Your task to perform on an android device: open a bookmark in the chrome app Image 0: 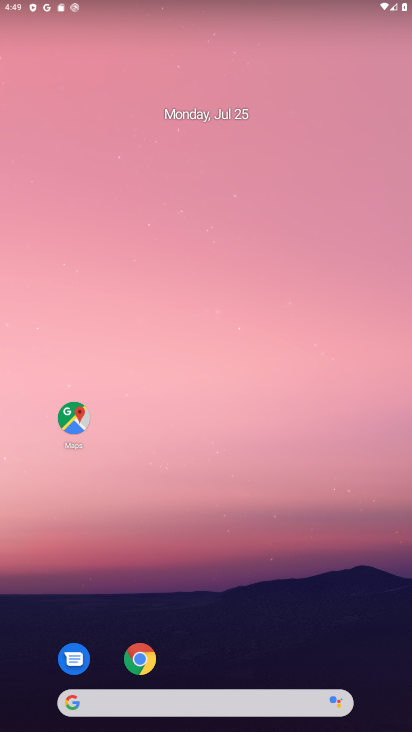
Step 0: click (136, 658)
Your task to perform on an android device: open a bookmark in the chrome app Image 1: 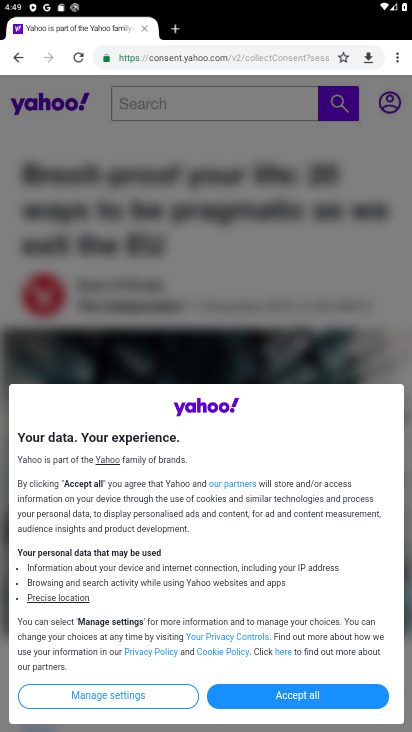
Step 1: click (397, 61)
Your task to perform on an android device: open a bookmark in the chrome app Image 2: 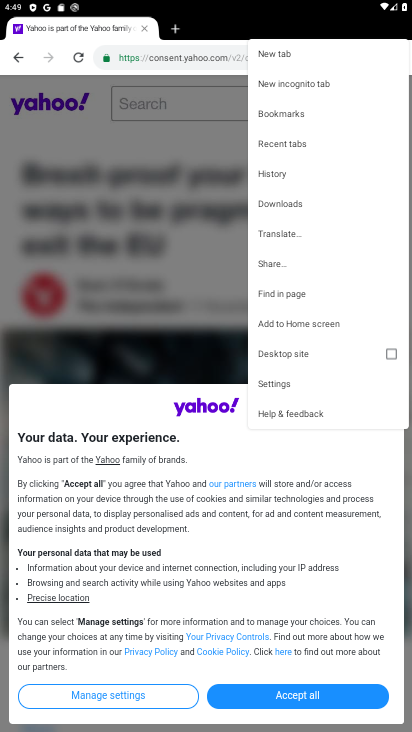
Step 2: click (301, 120)
Your task to perform on an android device: open a bookmark in the chrome app Image 3: 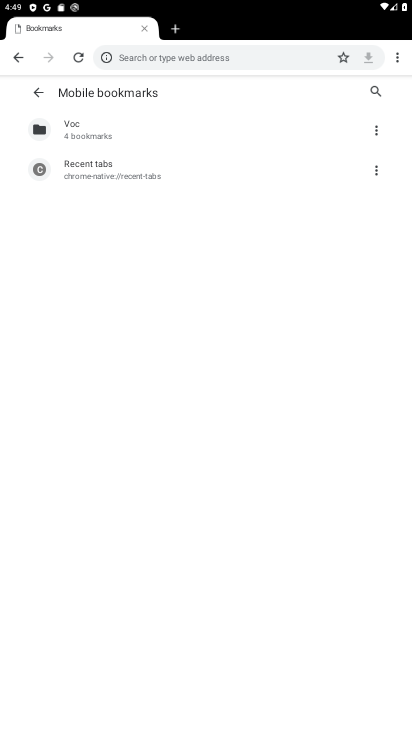
Step 3: task complete